Your task to perform on an android device: turn on location history Image 0: 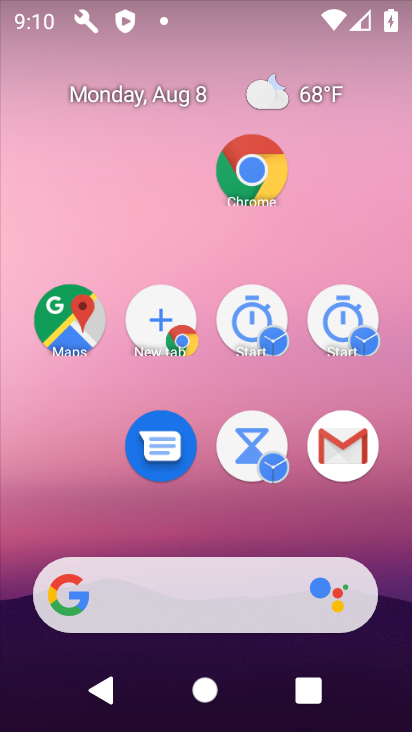
Step 0: drag from (231, 577) to (135, 200)
Your task to perform on an android device: turn on location history Image 1: 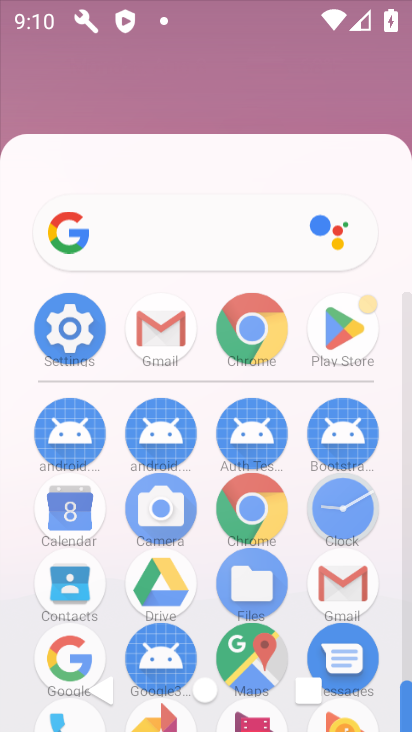
Step 1: drag from (195, 481) to (170, 135)
Your task to perform on an android device: turn on location history Image 2: 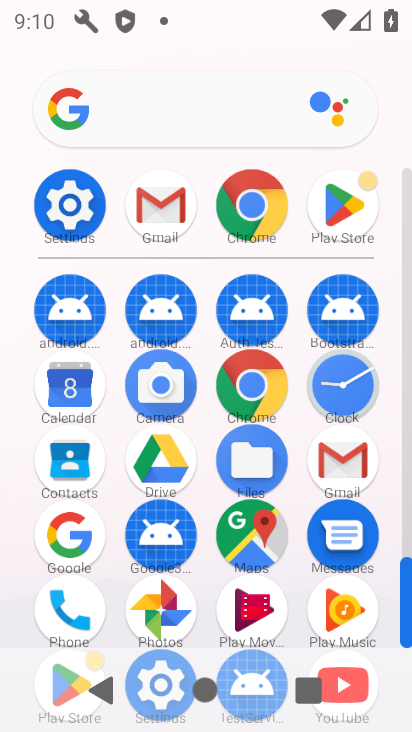
Step 2: drag from (258, 508) to (166, 98)
Your task to perform on an android device: turn on location history Image 3: 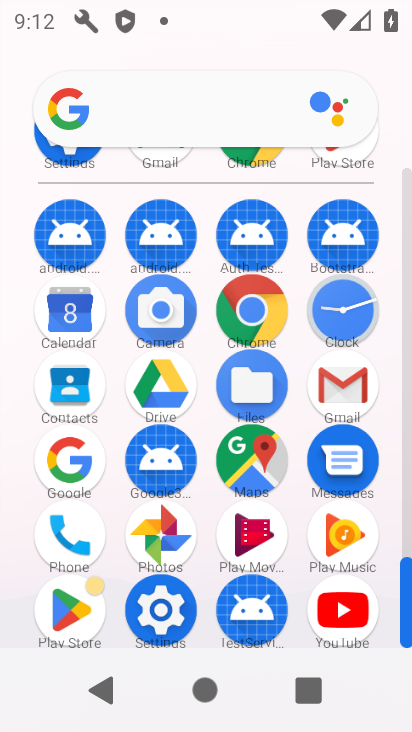
Step 3: click (149, 605)
Your task to perform on an android device: turn on location history Image 4: 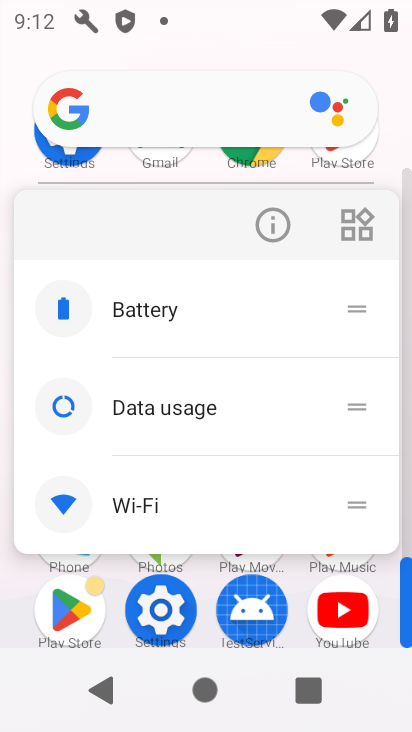
Step 4: click (304, 559)
Your task to perform on an android device: turn on location history Image 5: 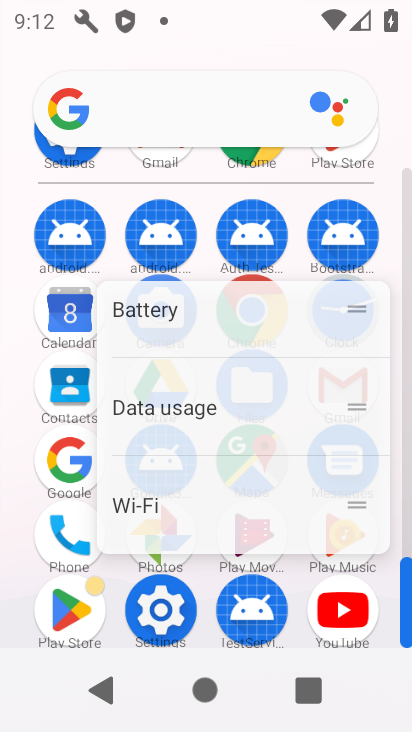
Step 5: click (307, 559)
Your task to perform on an android device: turn on location history Image 6: 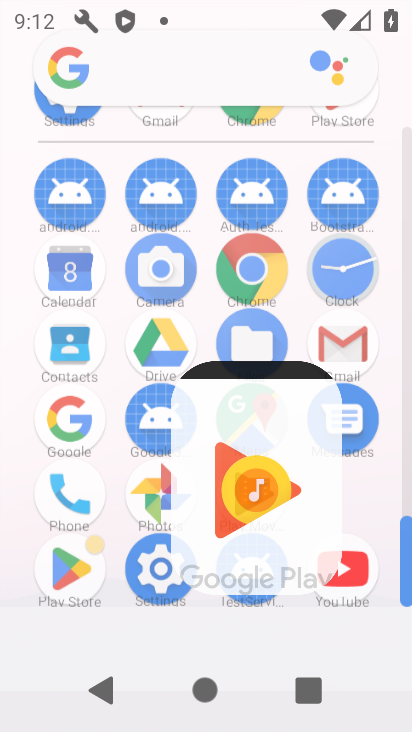
Step 6: press back button
Your task to perform on an android device: turn on location history Image 7: 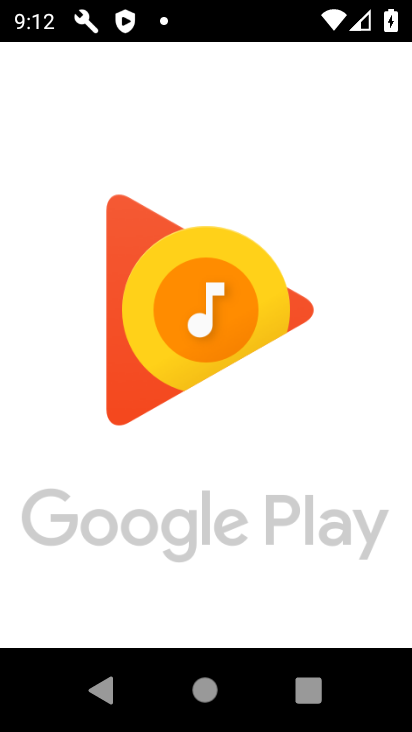
Step 7: press back button
Your task to perform on an android device: turn on location history Image 8: 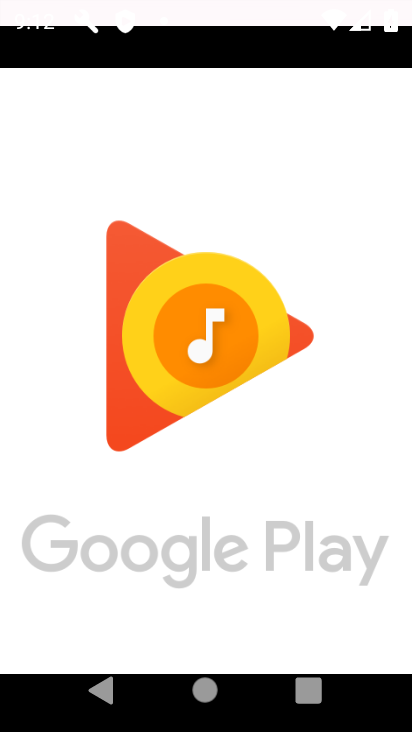
Step 8: press home button
Your task to perform on an android device: turn on location history Image 9: 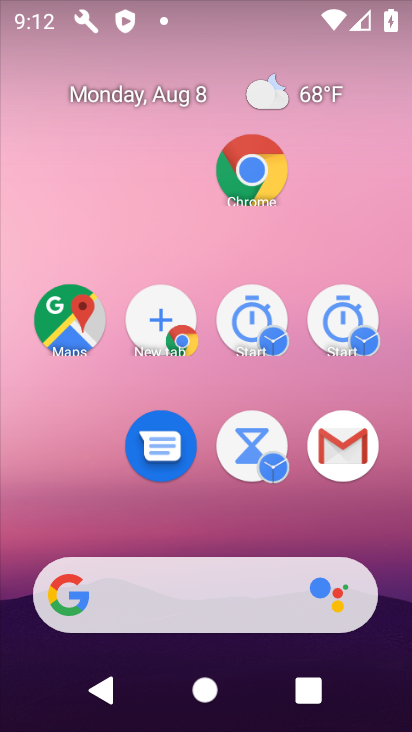
Step 9: press back button
Your task to perform on an android device: turn on location history Image 10: 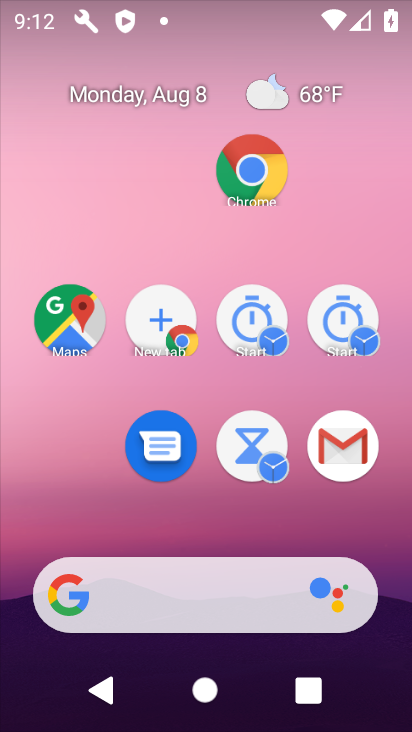
Step 10: drag from (213, 499) to (177, 137)
Your task to perform on an android device: turn on location history Image 11: 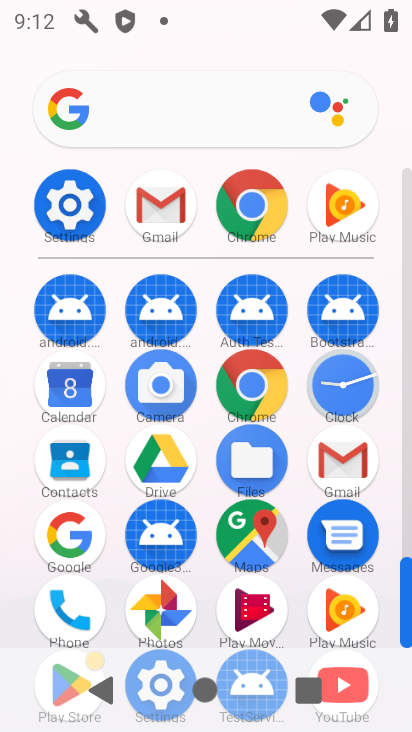
Step 11: click (60, 202)
Your task to perform on an android device: turn on location history Image 12: 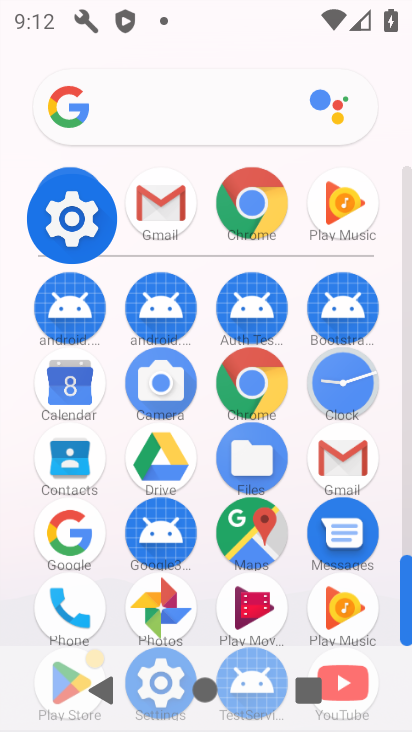
Step 12: click (64, 206)
Your task to perform on an android device: turn on location history Image 13: 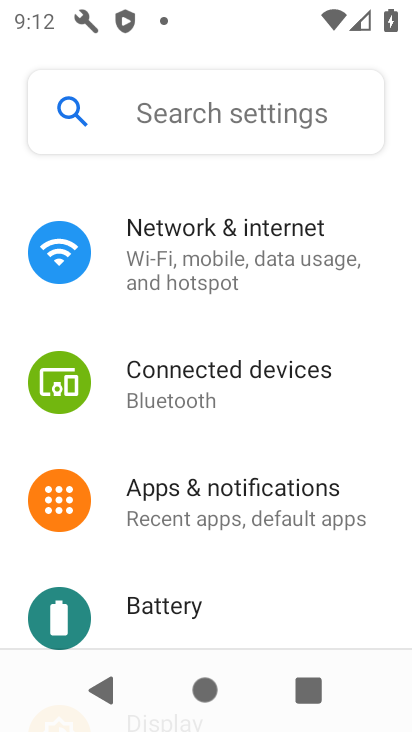
Step 13: click (64, 206)
Your task to perform on an android device: turn on location history Image 14: 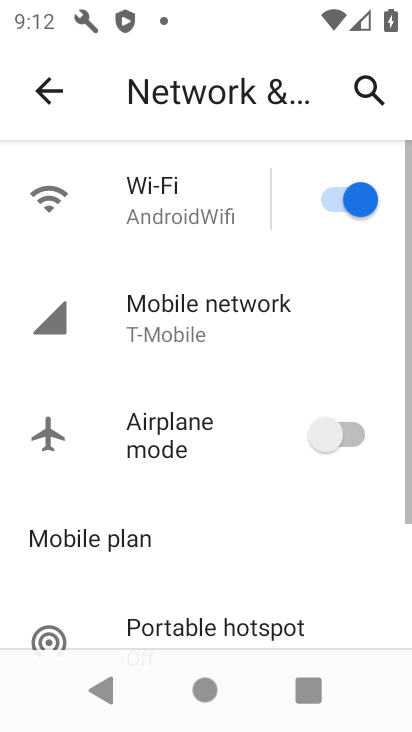
Step 14: drag from (199, 535) to (167, 288)
Your task to perform on an android device: turn on location history Image 15: 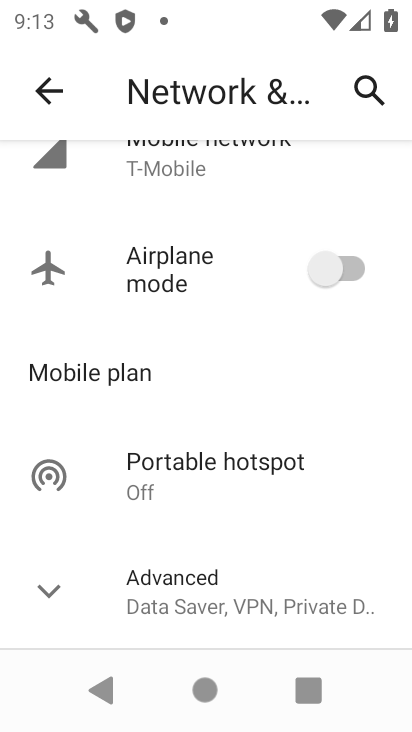
Step 15: drag from (240, 480) to (194, 172)
Your task to perform on an android device: turn on location history Image 16: 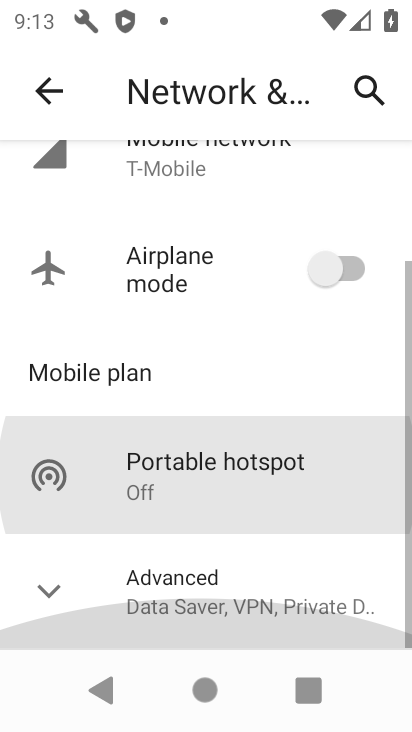
Step 16: drag from (213, 511) to (213, 254)
Your task to perform on an android device: turn on location history Image 17: 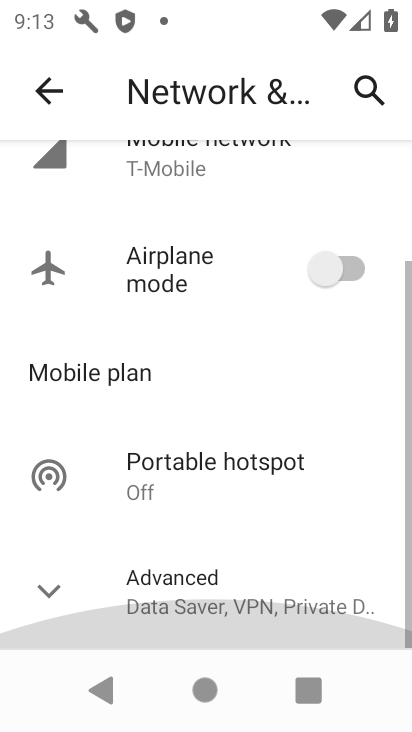
Step 17: click (219, 205)
Your task to perform on an android device: turn on location history Image 18: 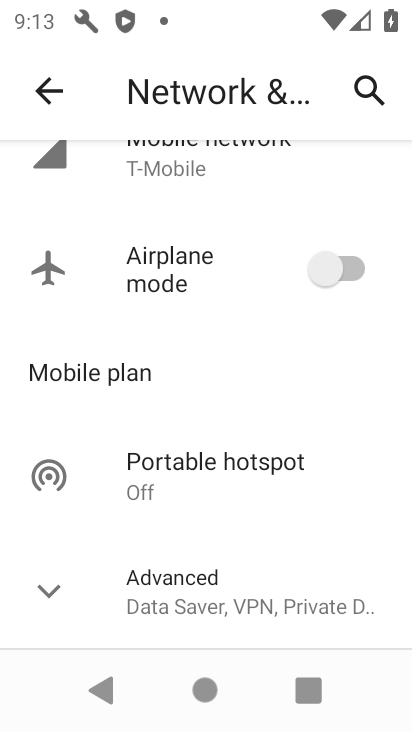
Step 18: drag from (259, 509) to (169, 143)
Your task to perform on an android device: turn on location history Image 19: 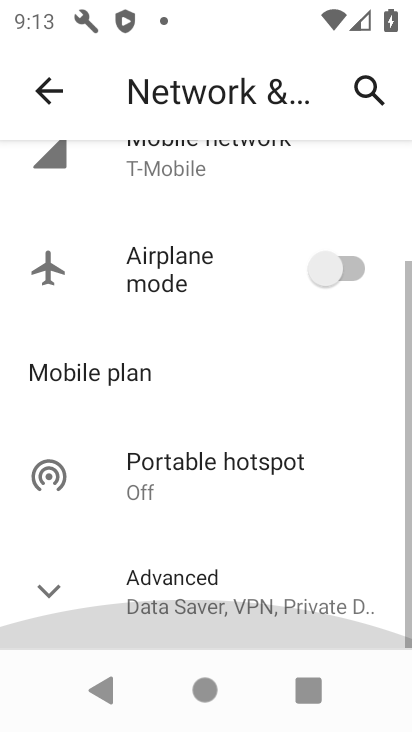
Step 19: drag from (214, 563) to (191, 150)
Your task to perform on an android device: turn on location history Image 20: 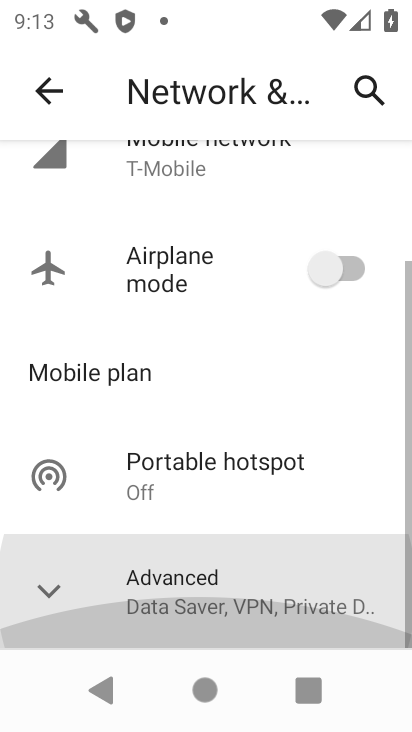
Step 20: drag from (209, 503) to (196, 186)
Your task to perform on an android device: turn on location history Image 21: 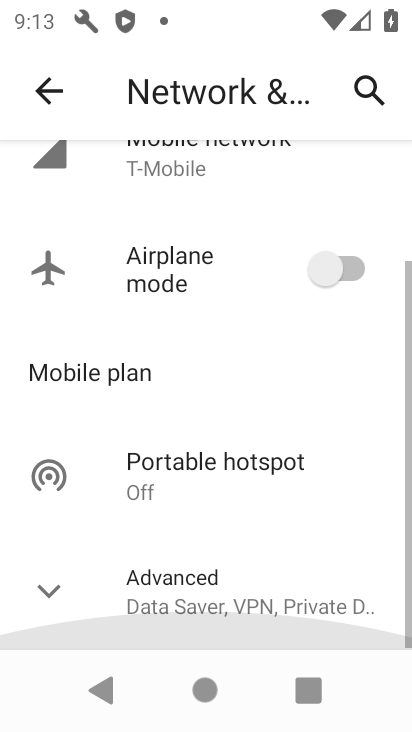
Step 21: drag from (231, 471) to (191, 174)
Your task to perform on an android device: turn on location history Image 22: 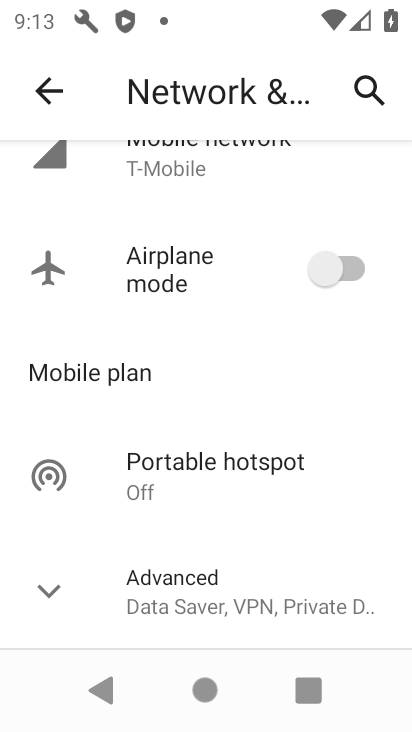
Step 22: drag from (164, 255) to (254, 590)
Your task to perform on an android device: turn on location history Image 23: 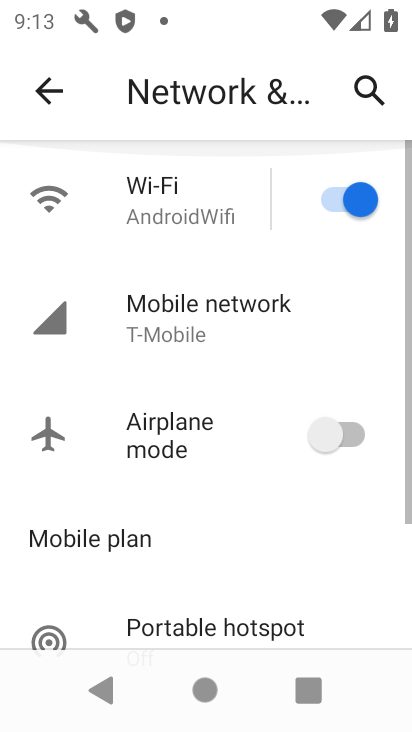
Step 23: drag from (214, 292) to (261, 506)
Your task to perform on an android device: turn on location history Image 24: 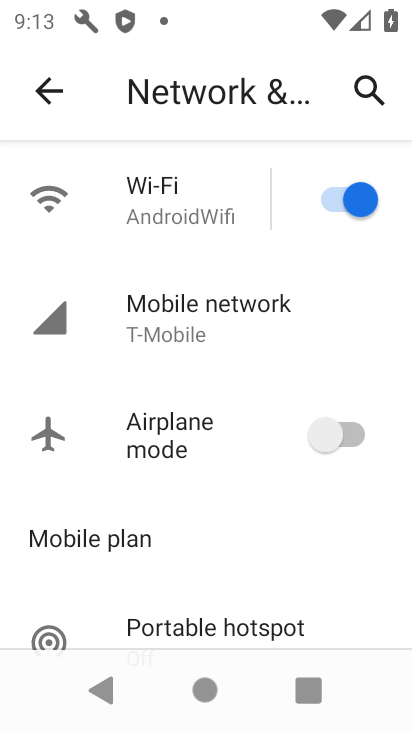
Step 24: drag from (176, 555) to (165, 228)
Your task to perform on an android device: turn on location history Image 25: 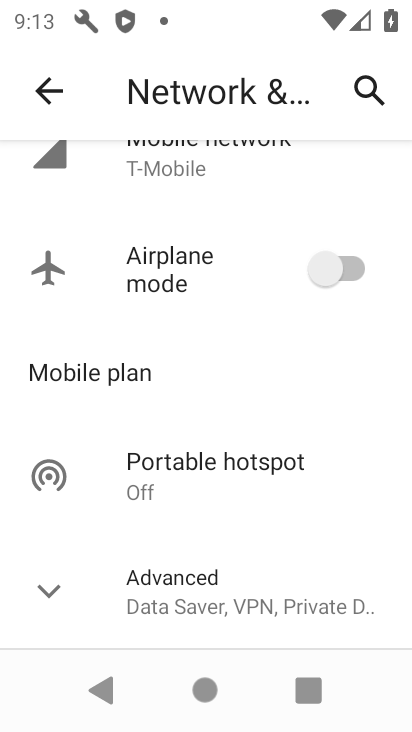
Step 25: drag from (189, 555) to (189, 256)
Your task to perform on an android device: turn on location history Image 26: 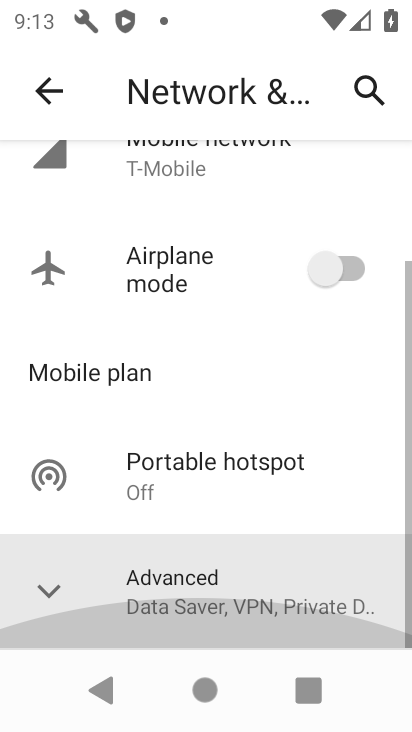
Step 26: drag from (249, 467) to (222, 315)
Your task to perform on an android device: turn on location history Image 27: 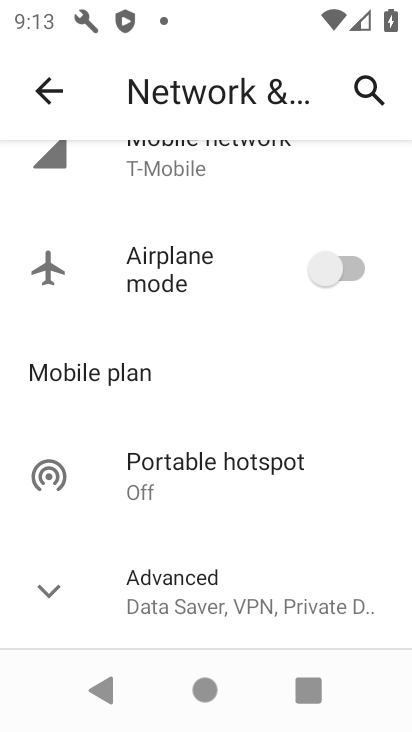
Step 27: click (37, 91)
Your task to perform on an android device: turn on location history Image 28: 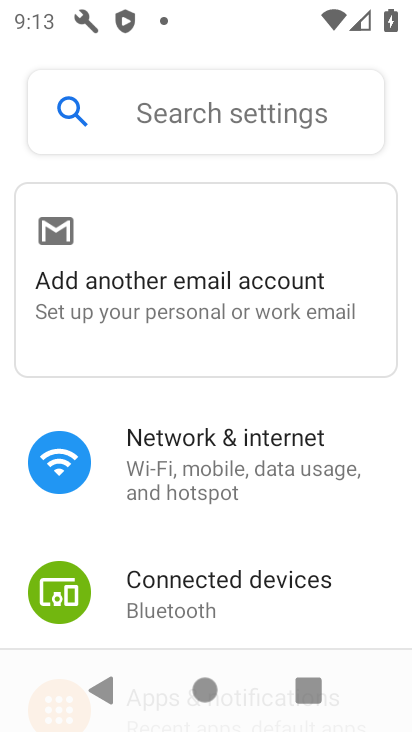
Step 28: drag from (201, 563) to (210, 377)
Your task to perform on an android device: turn on location history Image 29: 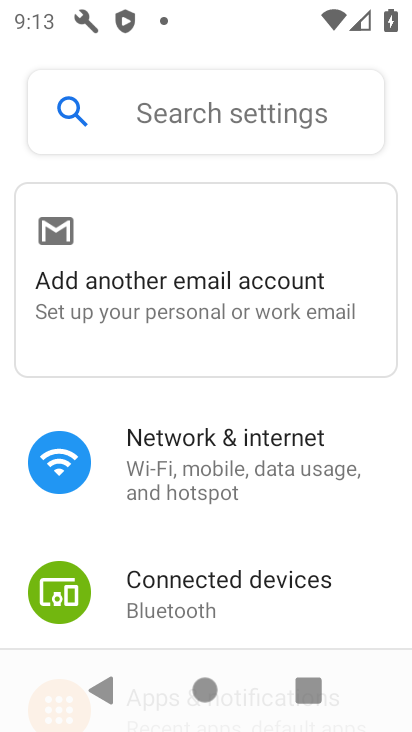
Step 29: drag from (202, 544) to (193, 345)
Your task to perform on an android device: turn on location history Image 30: 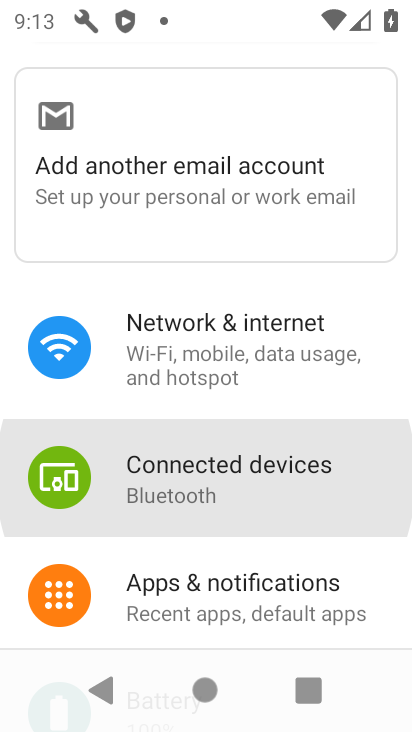
Step 30: drag from (211, 560) to (208, 329)
Your task to perform on an android device: turn on location history Image 31: 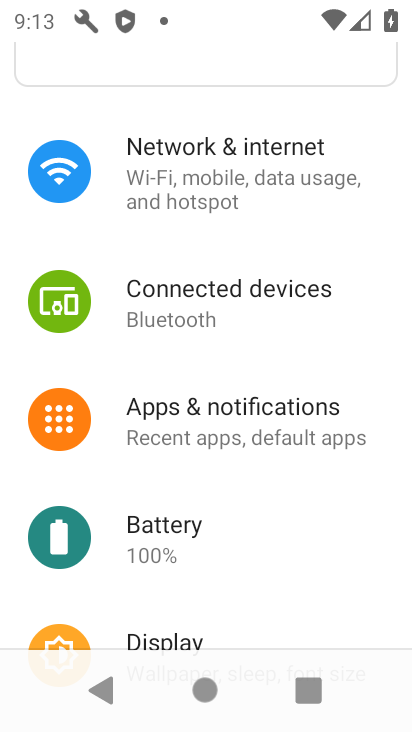
Step 31: drag from (233, 507) to (236, 393)
Your task to perform on an android device: turn on location history Image 32: 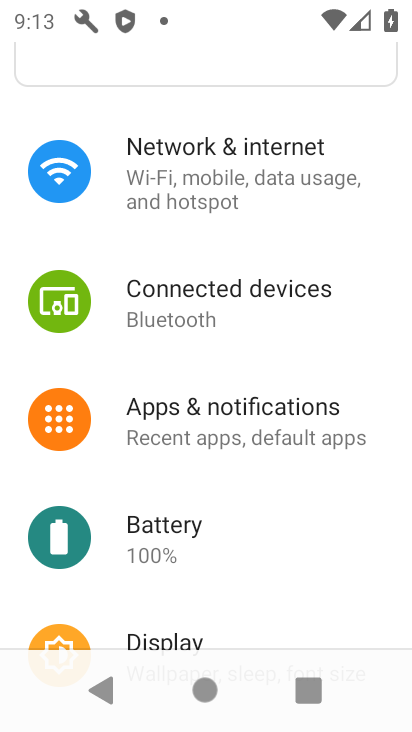
Step 32: drag from (239, 502) to (214, 252)
Your task to perform on an android device: turn on location history Image 33: 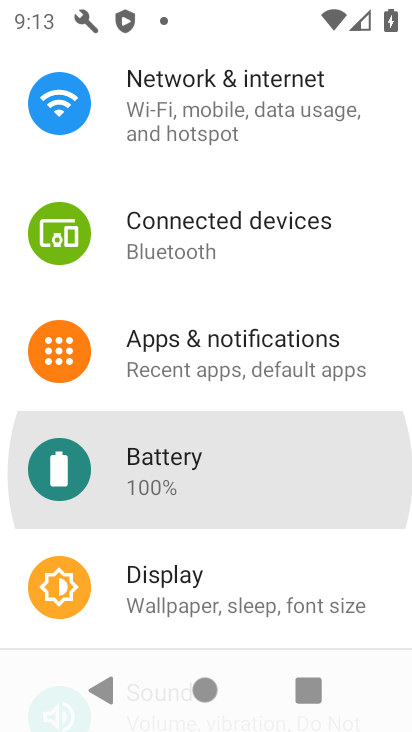
Step 33: drag from (221, 496) to (215, 177)
Your task to perform on an android device: turn on location history Image 34: 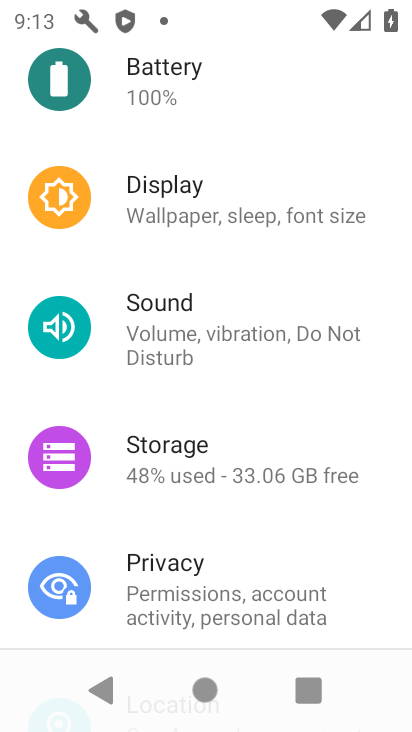
Step 34: drag from (265, 426) to (282, 136)
Your task to perform on an android device: turn on location history Image 35: 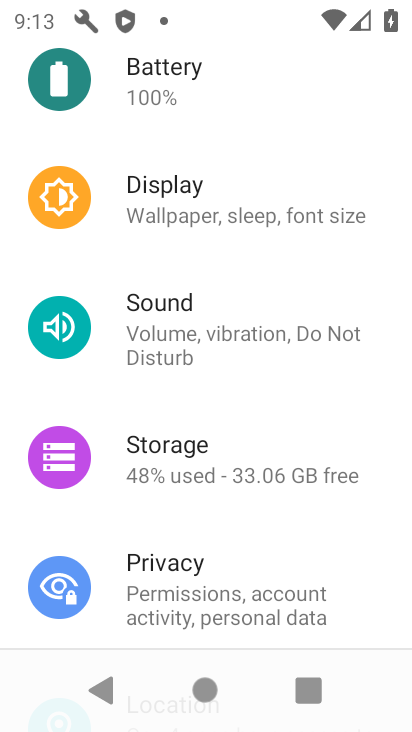
Step 35: drag from (283, 416) to (249, 157)
Your task to perform on an android device: turn on location history Image 36: 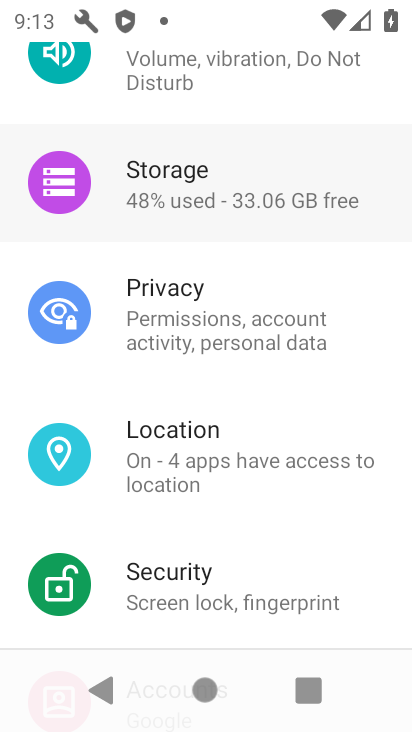
Step 36: drag from (276, 457) to (258, 186)
Your task to perform on an android device: turn on location history Image 37: 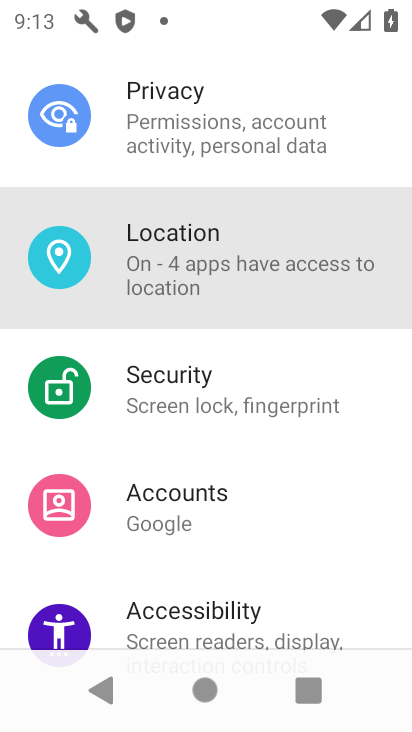
Step 37: drag from (246, 482) to (210, 175)
Your task to perform on an android device: turn on location history Image 38: 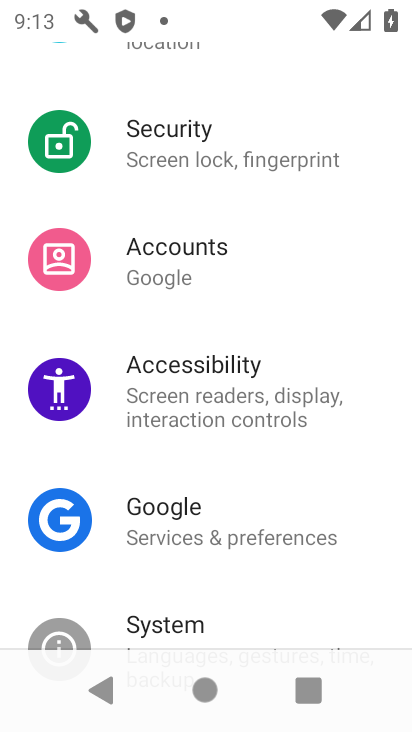
Step 38: drag from (165, 206) to (182, 452)
Your task to perform on an android device: turn on location history Image 39: 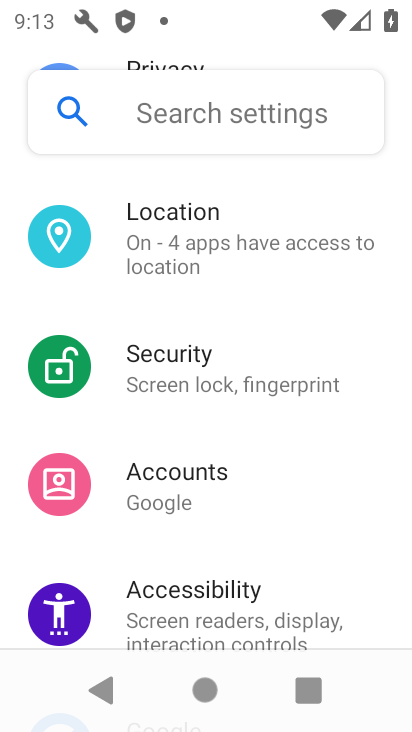
Step 39: drag from (186, 285) to (209, 440)
Your task to perform on an android device: turn on location history Image 40: 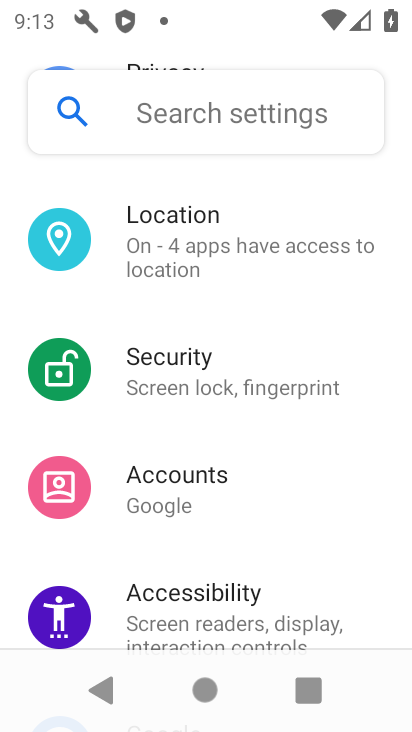
Step 40: click (180, 253)
Your task to perform on an android device: turn on location history Image 41: 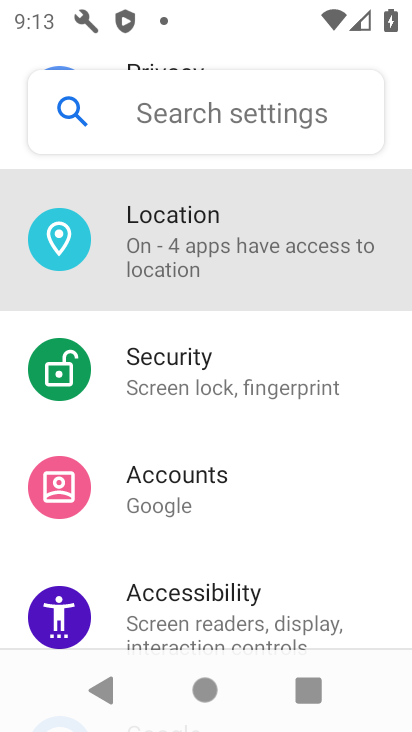
Step 41: click (180, 253)
Your task to perform on an android device: turn on location history Image 42: 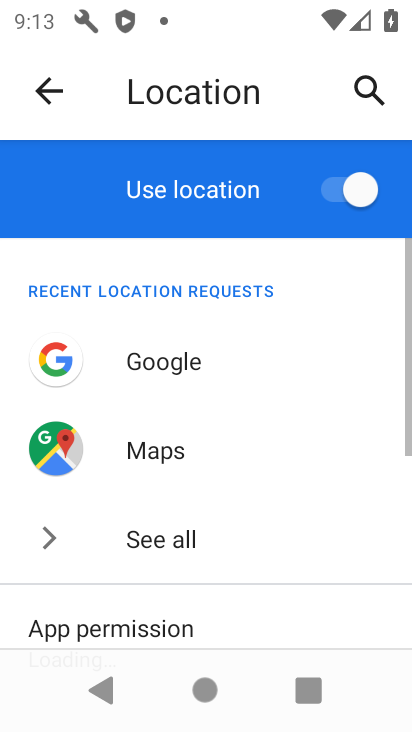
Step 42: drag from (260, 524) to (234, 239)
Your task to perform on an android device: turn on location history Image 43: 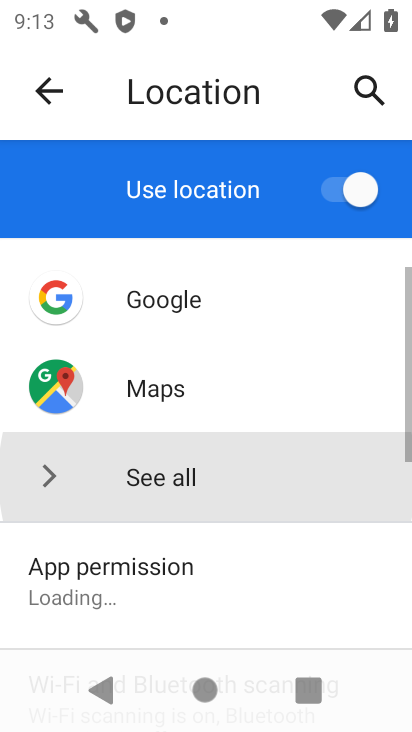
Step 43: drag from (279, 488) to (261, 276)
Your task to perform on an android device: turn on location history Image 44: 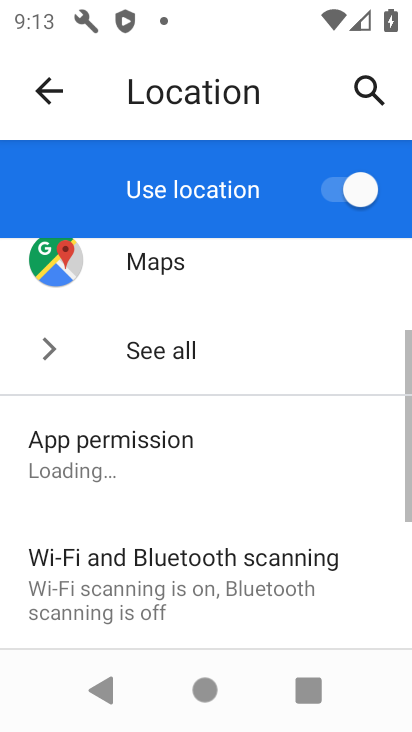
Step 44: drag from (251, 489) to (232, 279)
Your task to perform on an android device: turn on location history Image 45: 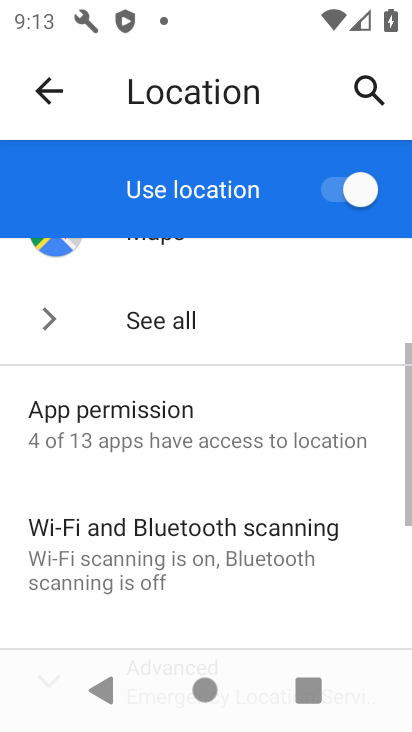
Step 45: drag from (292, 471) to (254, 199)
Your task to perform on an android device: turn on location history Image 46: 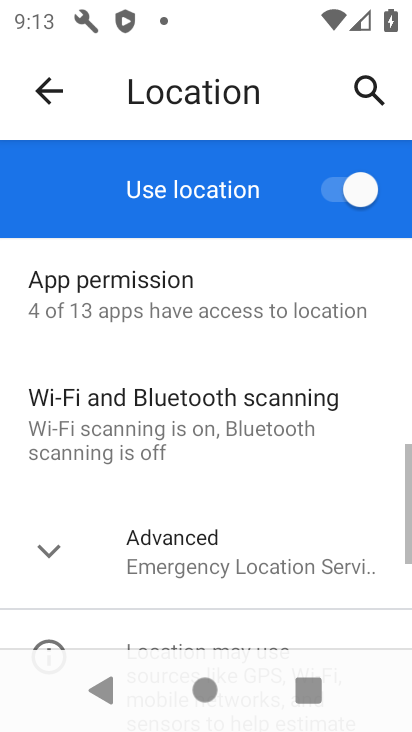
Step 46: drag from (299, 442) to (299, 190)
Your task to perform on an android device: turn on location history Image 47: 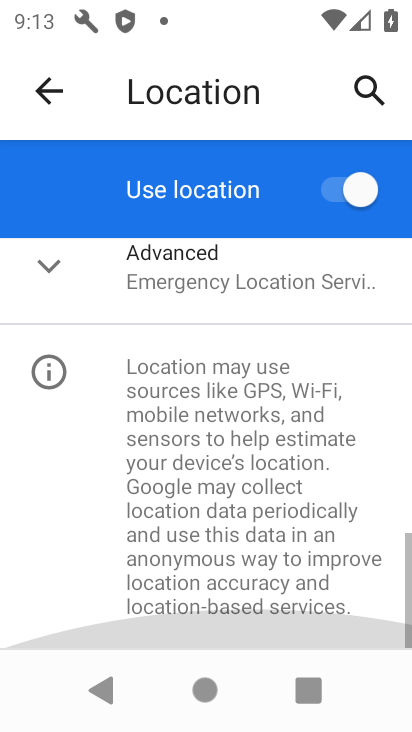
Step 47: drag from (285, 466) to (268, 252)
Your task to perform on an android device: turn on location history Image 48: 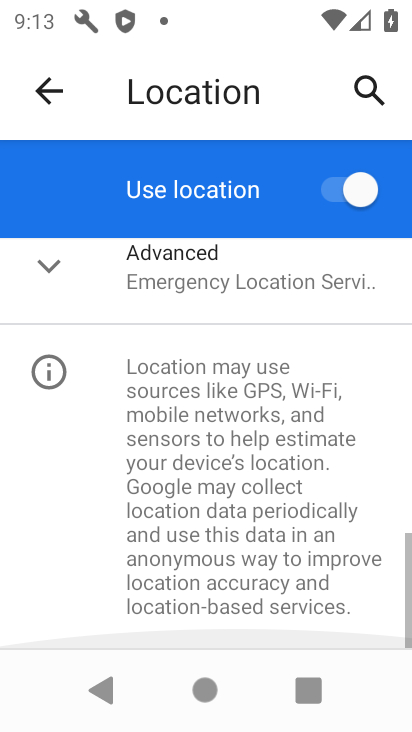
Step 48: drag from (290, 498) to (275, 302)
Your task to perform on an android device: turn on location history Image 49: 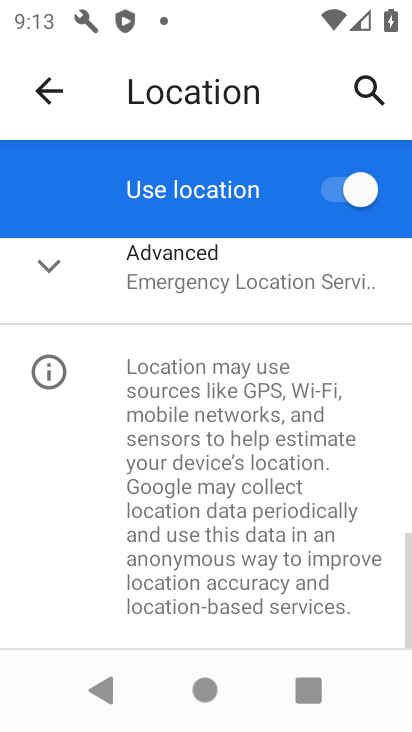
Step 49: drag from (275, 301) to (293, 559)
Your task to perform on an android device: turn on location history Image 50: 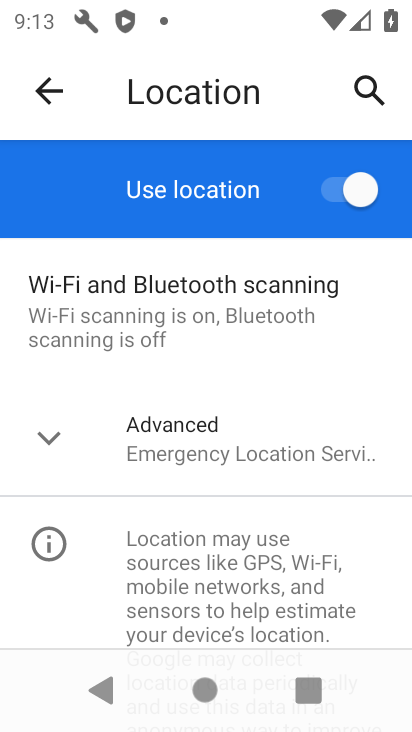
Step 50: click (193, 443)
Your task to perform on an android device: turn on location history Image 51: 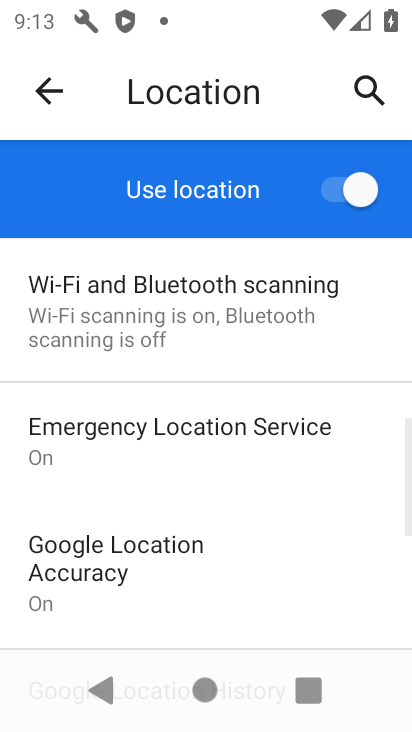
Step 51: drag from (185, 553) to (183, 331)
Your task to perform on an android device: turn on location history Image 52: 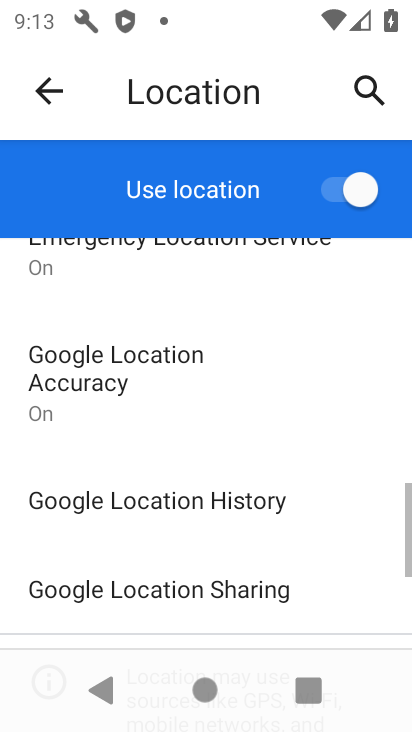
Step 52: drag from (171, 527) to (214, 427)
Your task to perform on an android device: turn on location history Image 53: 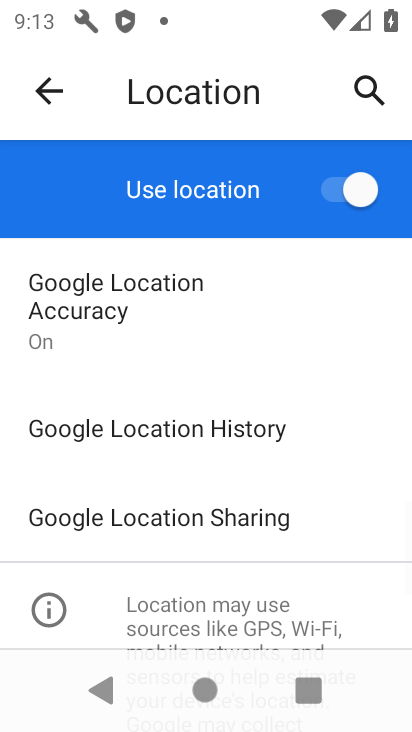
Step 53: click (133, 497)
Your task to perform on an android device: turn on location history Image 54: 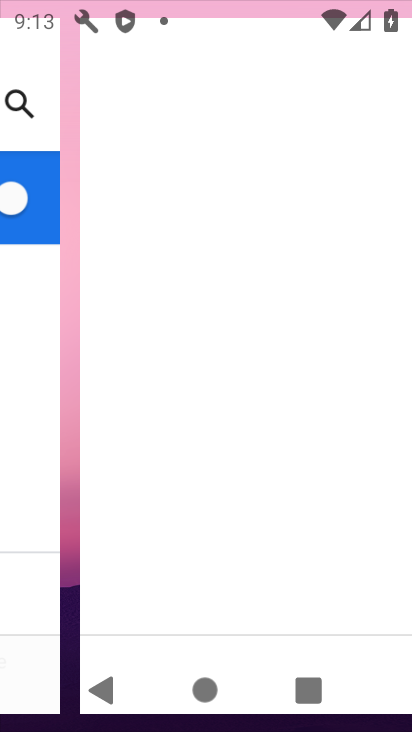
Step 54: click (143, 441)
Your task to perform on an android device: turn on location history Image 55: 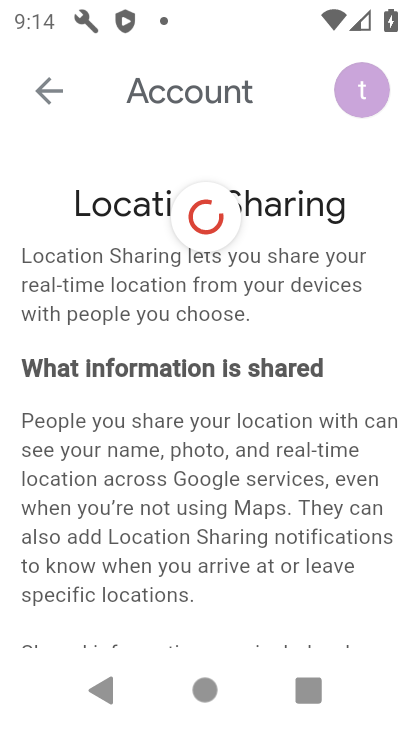
Step 55: click (45, 95)
Your task to perform on an android device: turn on location history Image 56: 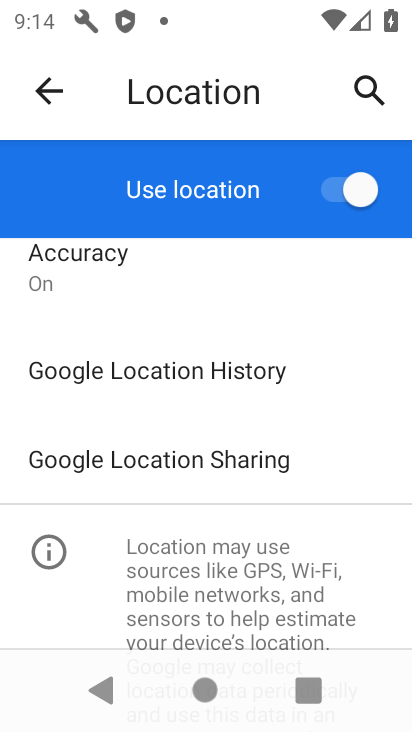
Step 56: click (158, 364)
Your task to perform on an android device: turn on location history Image 57: 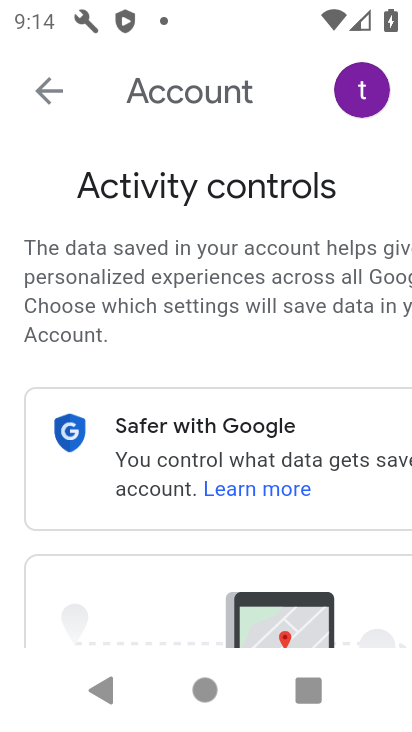
Step 57: task complete